Your task to perform on an android device: Go to CNN.com Image 0: 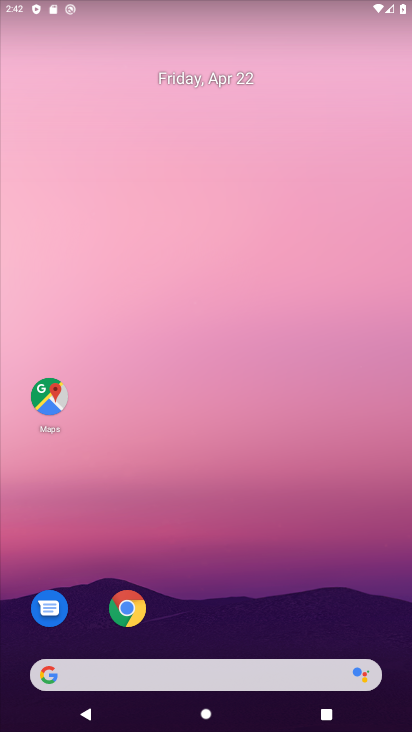
Step 0: drag from (192, 651) to (204, 7)
Your task to perform on an android device: Go to CNN.com Image 1: 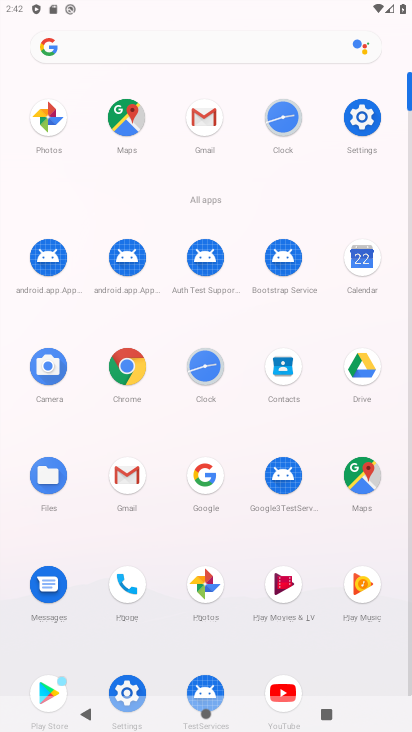
Step 1: click (136, 355)
Your task to perform on an android device: Go to CNN.com Image 2: 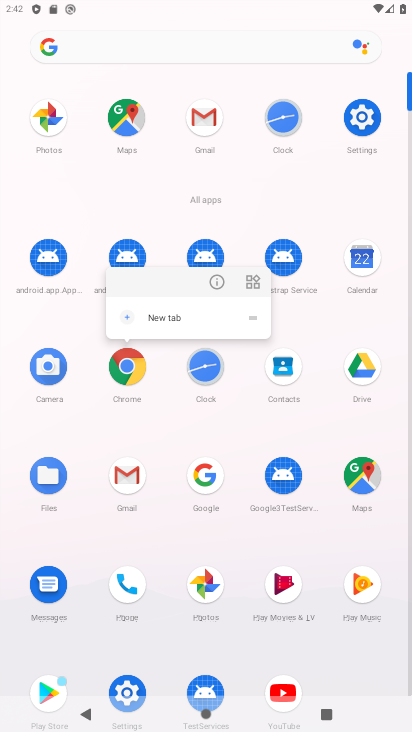
Step 2: click (136, 355)
Your task to perform on an android device: Go to CNN.com Image 3: 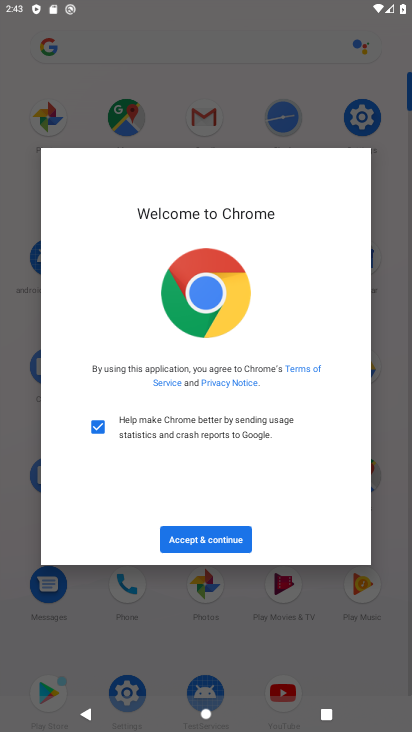
Step 3: click (199, 527)
Your task to perform on an android device: Go to CNN.com Image 4: 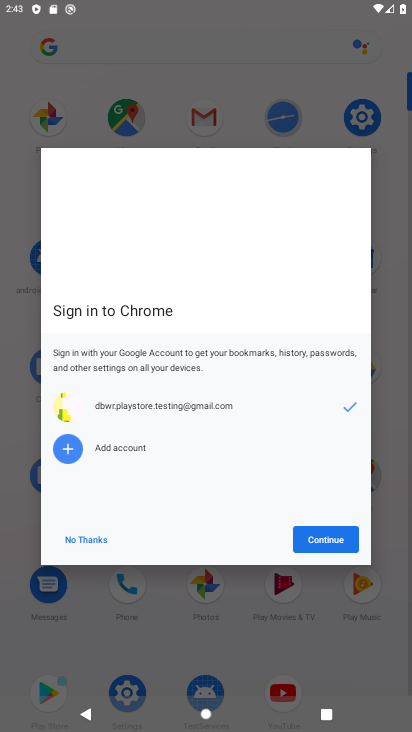
Step 4: click (343, 533)
Your task to perform on an android device: Go to CNN.com Image 5: 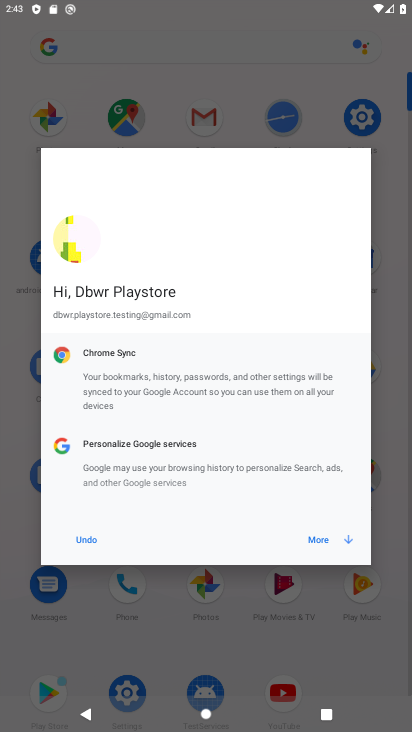
Step 5: click (329, 535)
Your task to perform on an android device: Go to CNN.com Image 6: 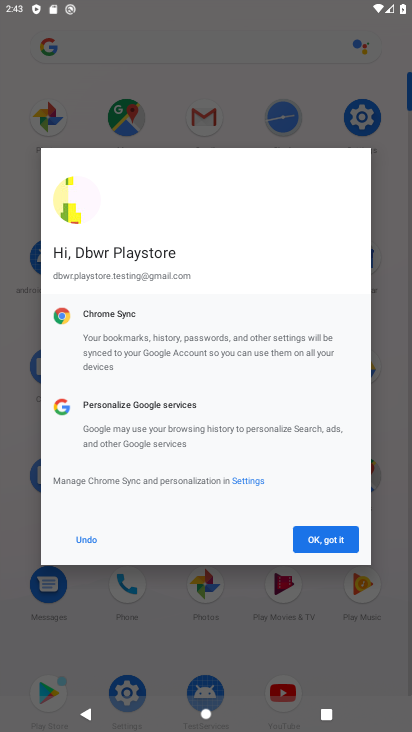
Step 6: click (328, 536)
Your task to perform on an android device: Go to CNN.com Image 7: 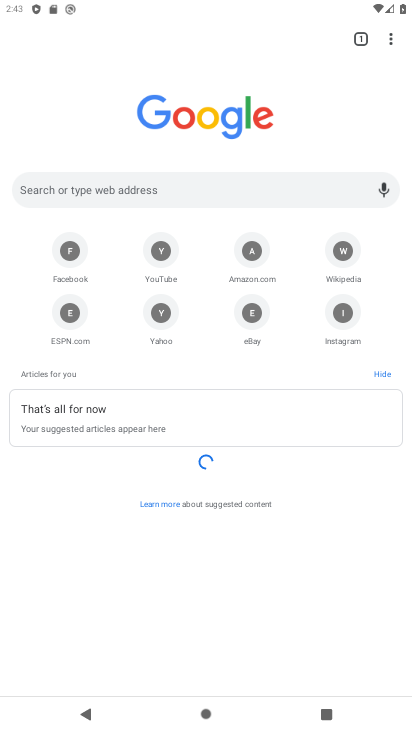
Step 7: click (115, 174)
Your task to perform on an android device: Go to CNN.com Image 8: 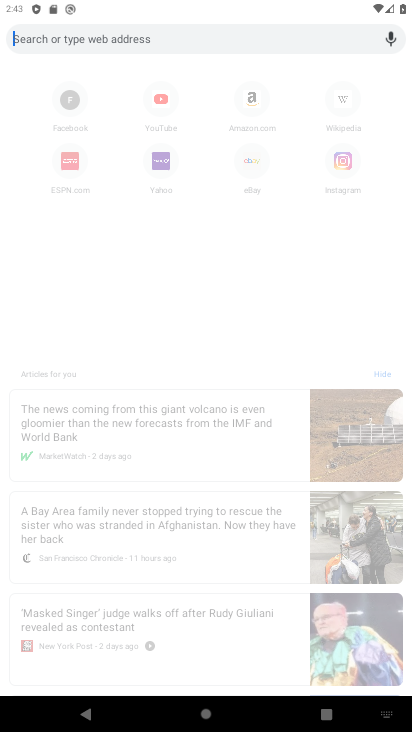
Step 8: type "cnn.com"
Your task to perform on an android device: Go to CNN.com Image 9: 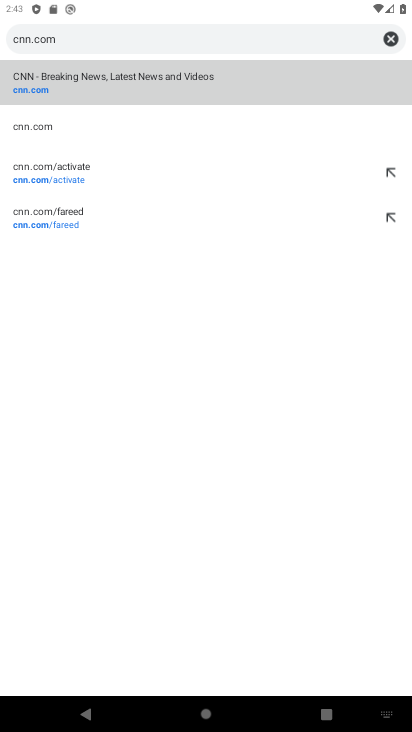
Step 9: click (44, 75)
Your task to perform on an android device: Go to CNN.com Image 10: 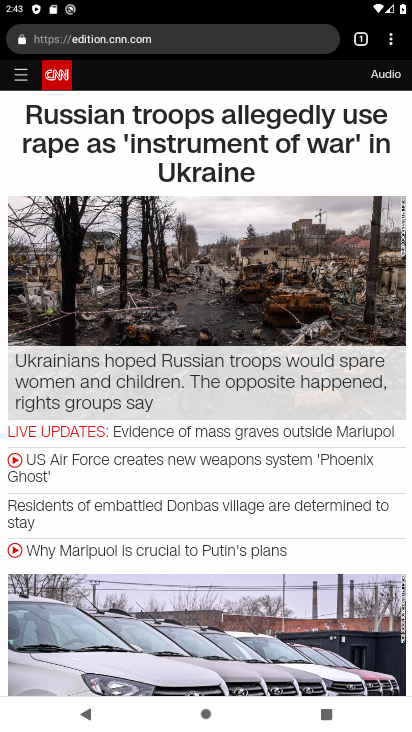
Step 10: task complete